Your task to perform on an android device: Check the weather Image 0: 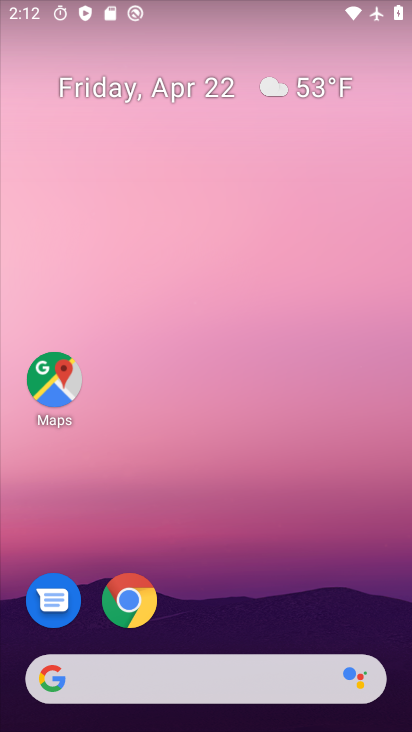
Step 0: click (273, 82)
Your task to perform on an android device: Check the weather Image 1: 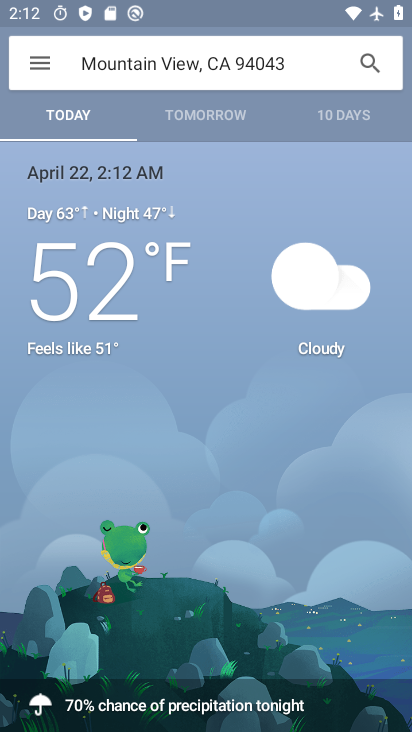
Step 1: task complete